Your task to perform on an android device: Go to network settings Image 0: 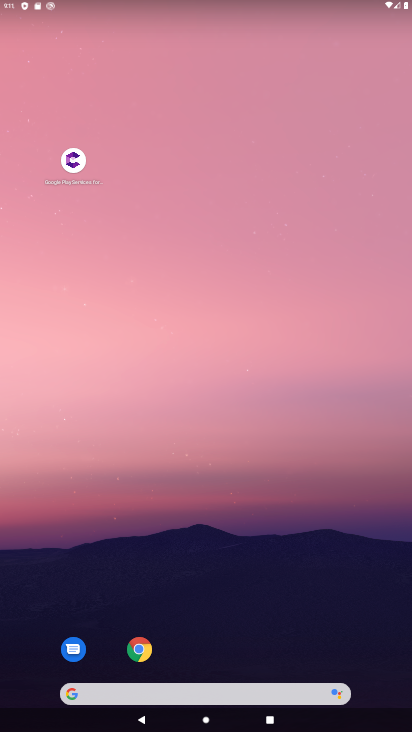
Step 0: drag from (69, 605) to (231, 46)
Your task to perform on an android device: Go to network settings Image 1: 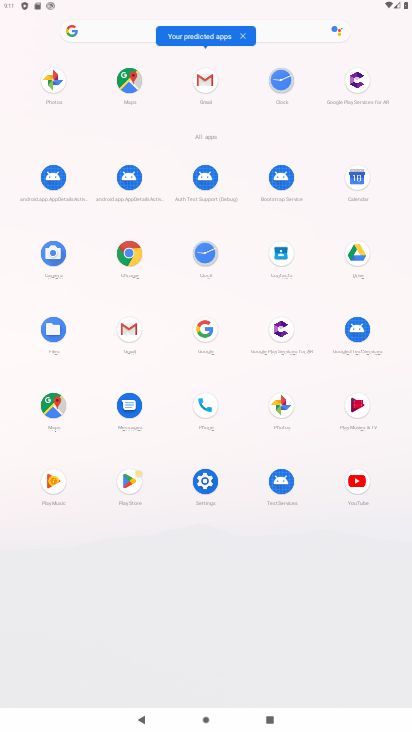
Step 1: click (207, 489)
Your task to perform on an android device: Go to network settings Image 2: 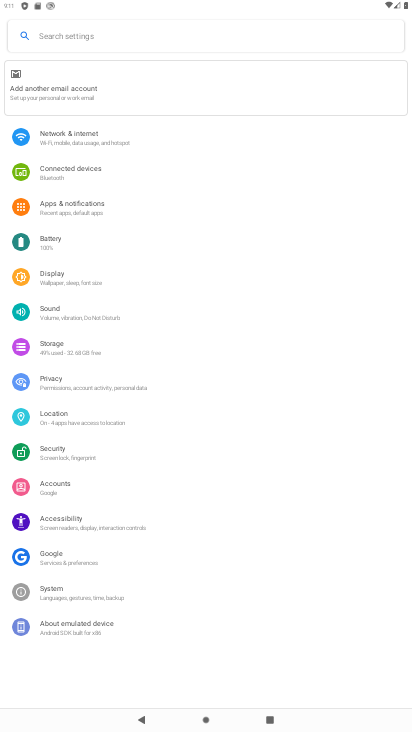
Step 2: click (119, 128)
Your task to perform on an android device: Go to network settings Image 3: 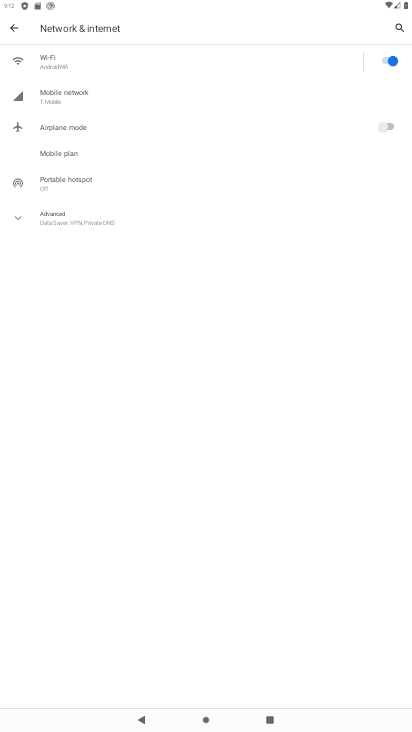
Step 3: task complete